Your task to perform on an android device: check data usage Image 0: 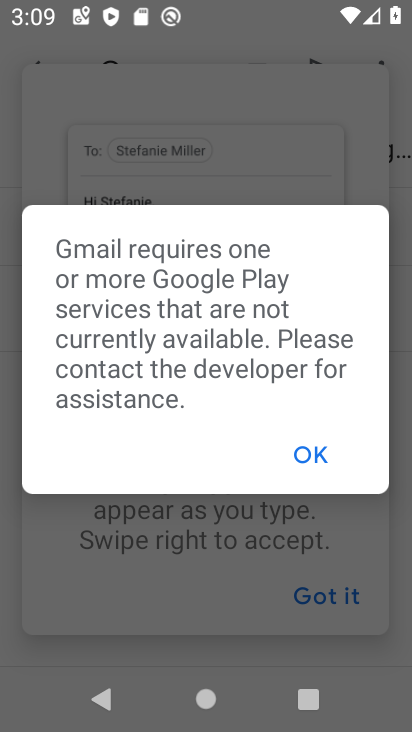
Step 0: press home button
Your task to perform on an android device: check data usage Image 1: 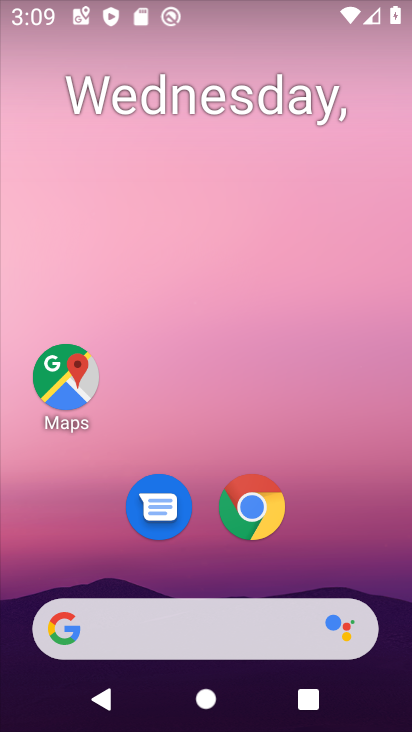
Step 1: drag from (314, 459) to (302, 268)
Your task to perform on an android device: check data usage Image 2: 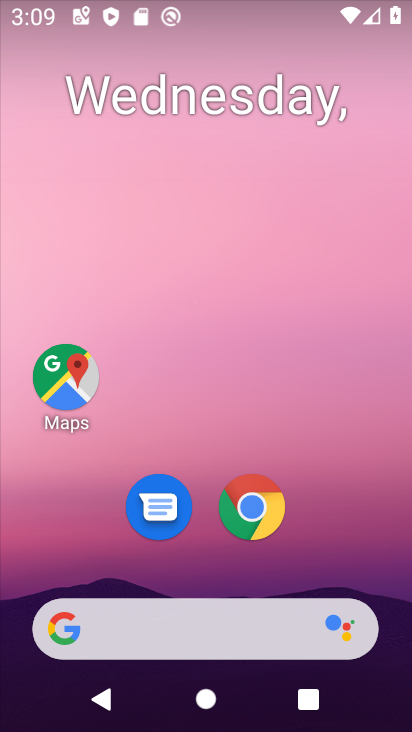
Step 2: drag from (328, 518) to (351, 122)
Your task to perform on an android device: check data usage Image 3: 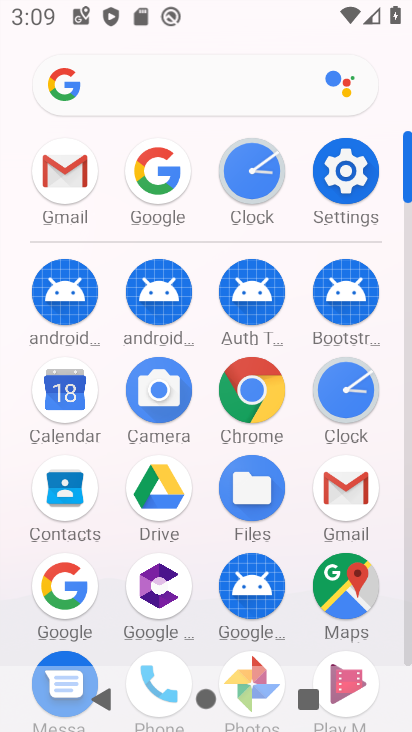
Step 3: click (343, 172)
Your task to perform on an android device: check data usage Image 4: 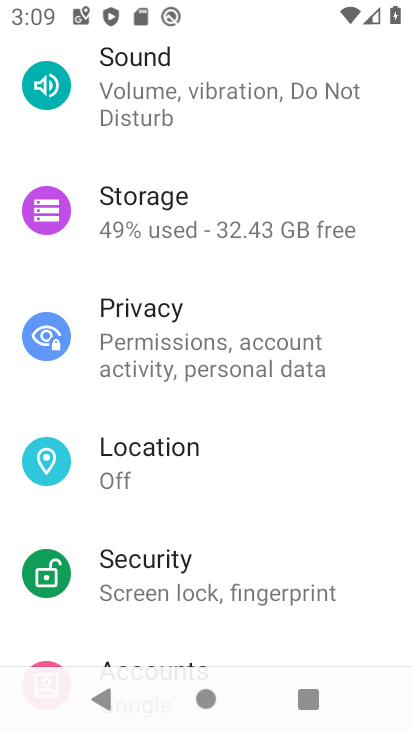
Step 4: drag from (278, 247) to (326, 595)
Your task to perform on an android device: check data usage Image 5: 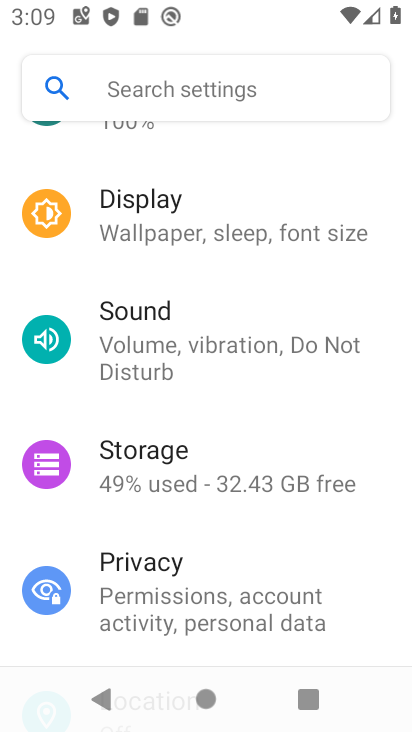
Step 5: drag from (333, 235) to (312, 556)
Your task to perform on an android device: check data usage Image 6: 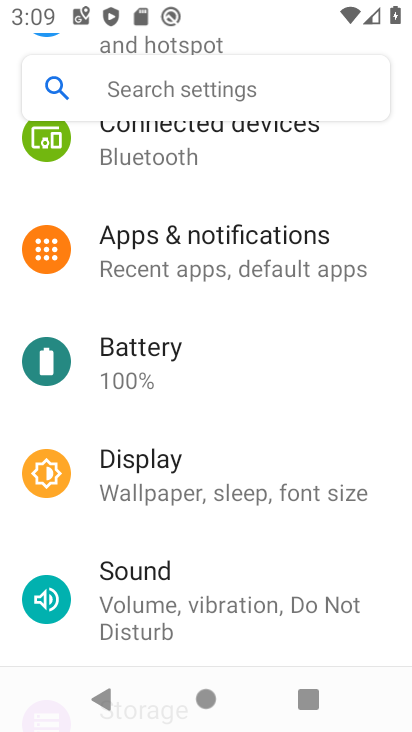
Step 6: drag from (281, 182) to (290, 592)
Your task to perform on an android device: check data usage Image 7: 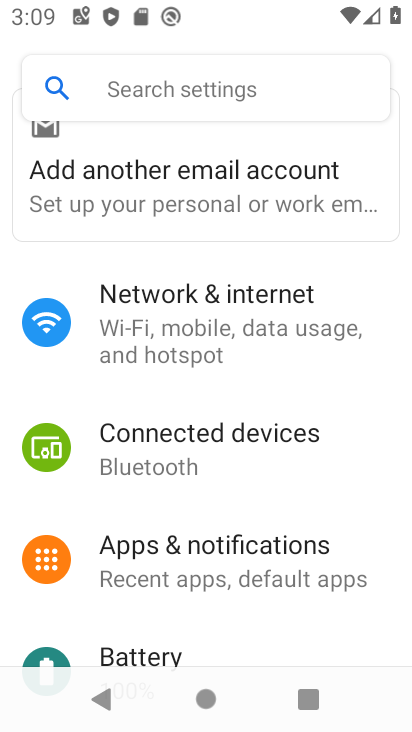
Step 7: click (242, 306)
Your task to perform on an android device: check data usage Image 8: 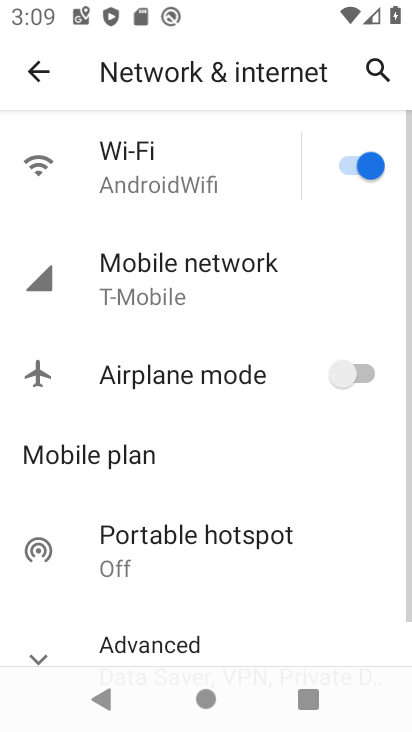
Step 8: click (221, 278)
Your task to perform on an android device: check data usage Image 9: 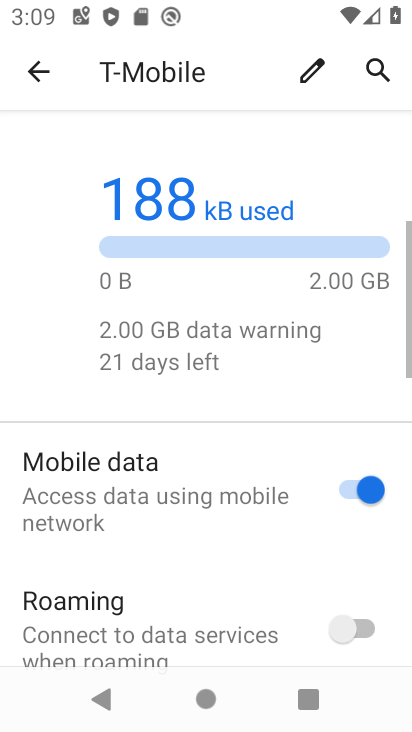
Step 9: task complete